Your task to perform on an android device: Is it going to rain today? Image 0: 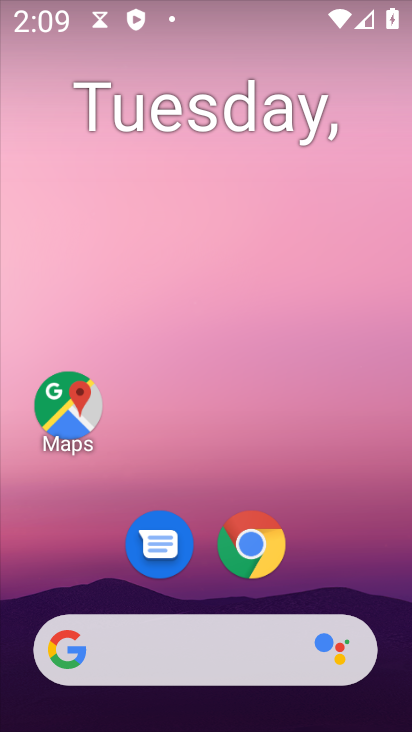
Step 0: drag from (327, 563) to (246, 37)
Your task to perform on an android device: Is it going to rain today? Image 1: 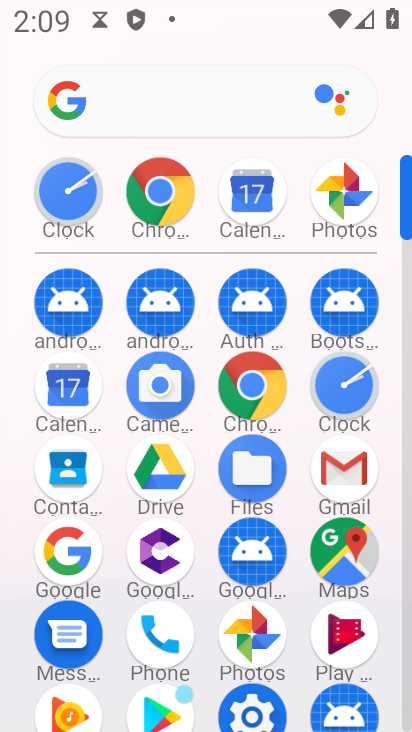
Step 1: drag from (9, 563) to (13, 272)
Your task to perform on an android device: Is it going to rain today? Image 2: 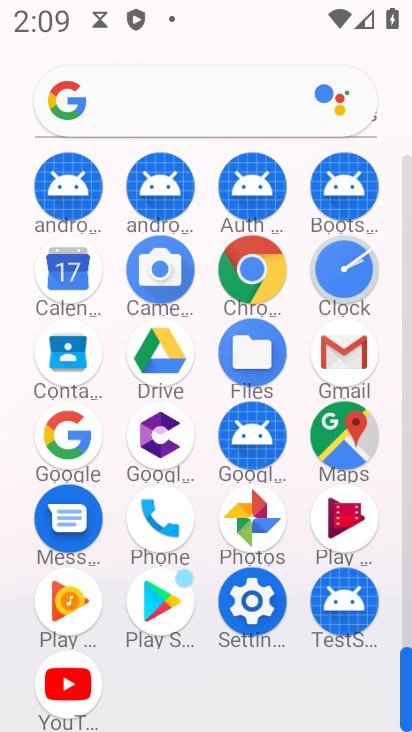
Step 2: click (252, 262)
Your task to perform on an android device: Is it going to rain today? Image 3: 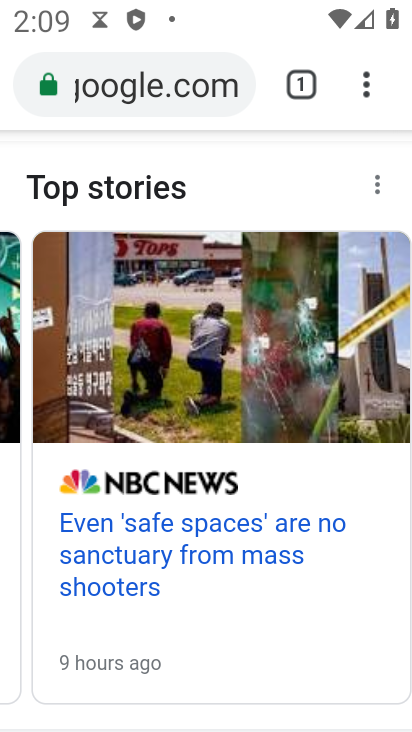
Step 3: click (148, 83)
Your task to perform on an android device: Is it going to rain today? Image 4: 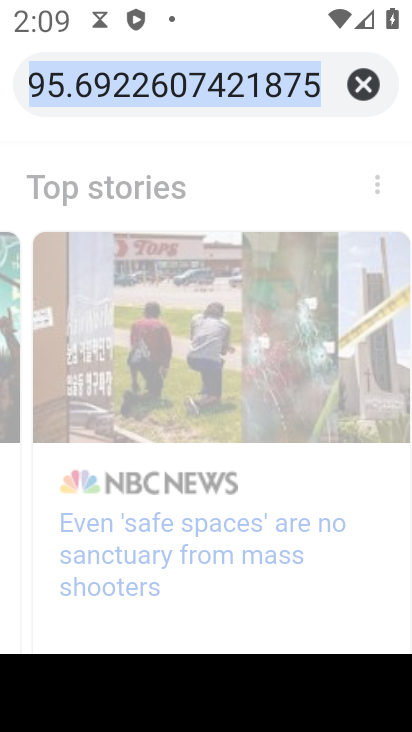
Step 4: click (356, 81)
Your task to perform on an android device: Is it going to rain today? Image 5: 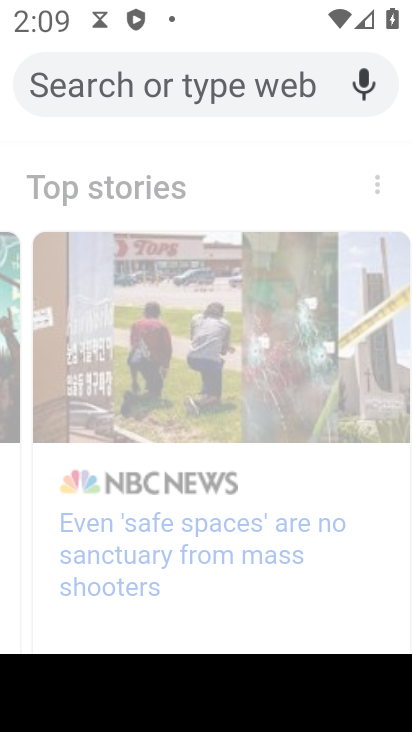
Step 5: type "Is it going to rain today?"
Your task to perform on an android device: Is it going to rain today? Image 6: 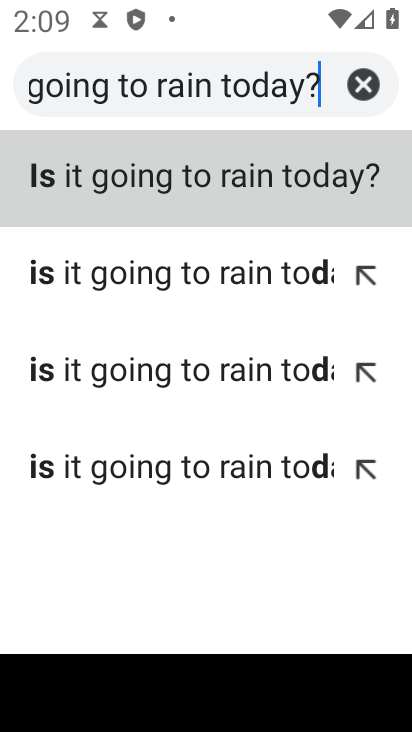
Step 6: click (197, 175)
Your task to perform on an android device: Is it going to rain today? Image 7: 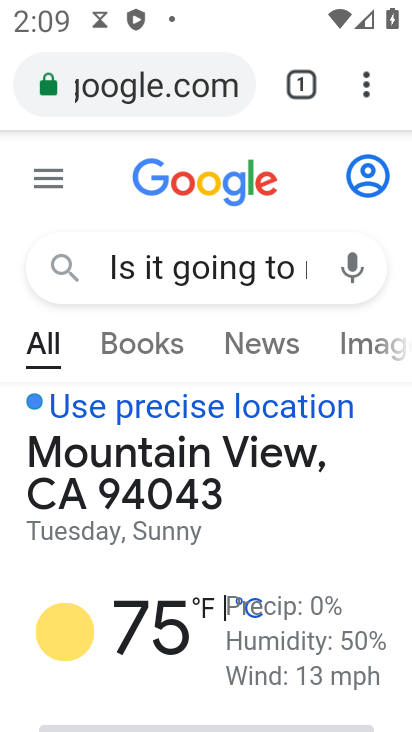
Step 7: task complete